Your task to perform on an android device: toggle improve location accuracy Image 0: 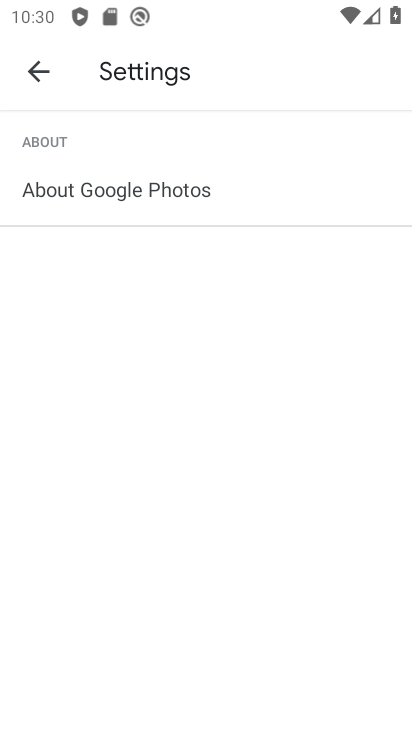
Step 0: press back button
Your task to perform on an android device: toggle improve location accuracy Image 1: 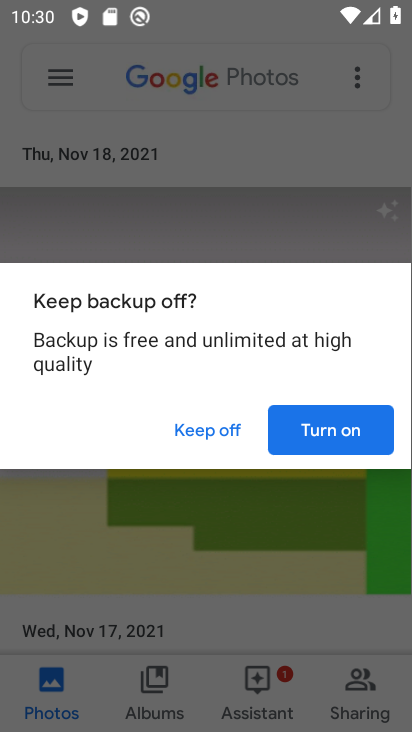
Step 1: press home button
Your task to perform on an android device: toggle improve location accuracy Image 2: 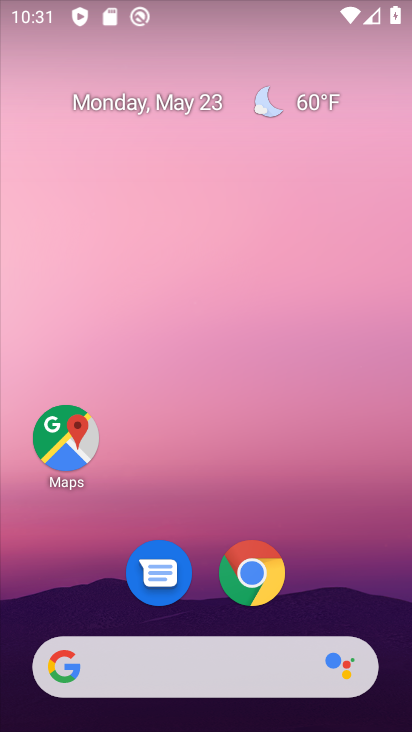
Step 2: drag from (310, 541) to (253, 0)
Your task to perform on an android device: toggle improve location accuracy Image 3: 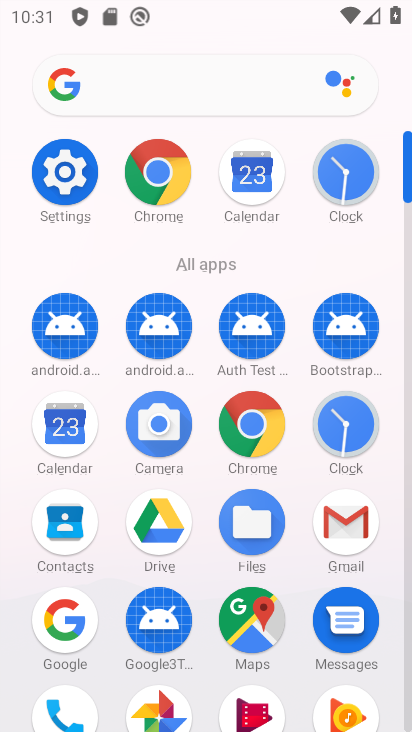
Step 3: drag from (16, 582) to (14, 181)
Your task to perform on an android device: toggle improve location accuracy Image 4: 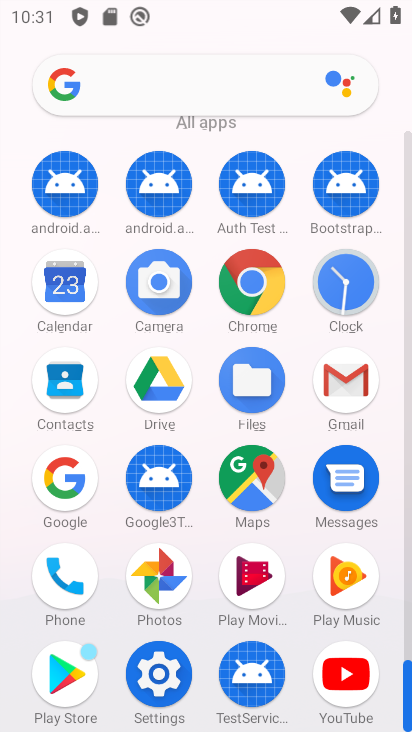
Step 4: click (157, 671)
Your task to perform on an android device: toggle improve location accuracy Image 5: 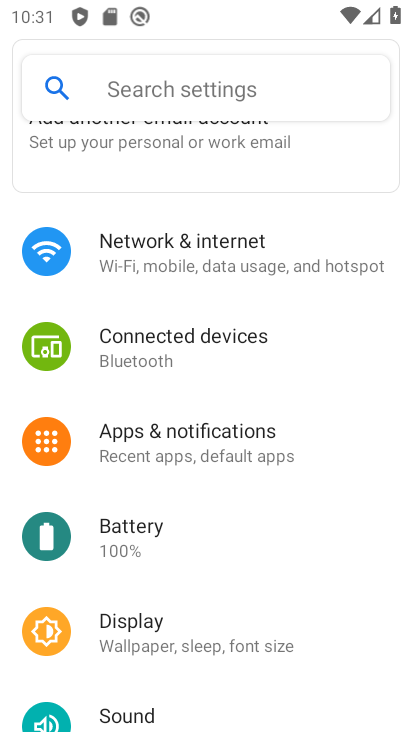
Step 5: drag from (279, 627) to (300, 167)
Your task to perform on an android device: toggle improve location accuracy Image 6: 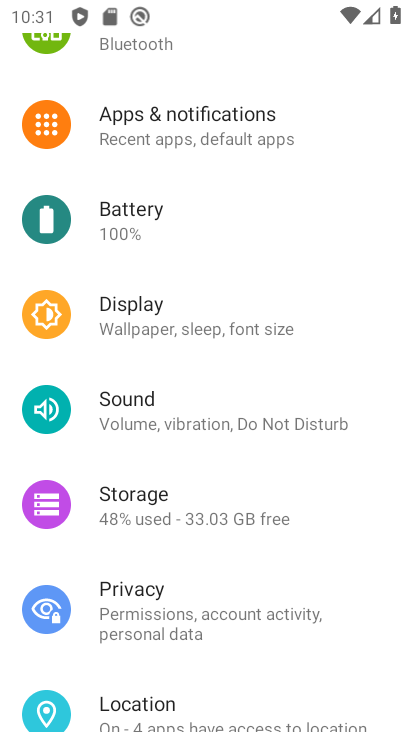
Step 6: drag from (238, 578) to (283, 157)
Your task to perform on an android device: toggle improve location accuracy Image 7: 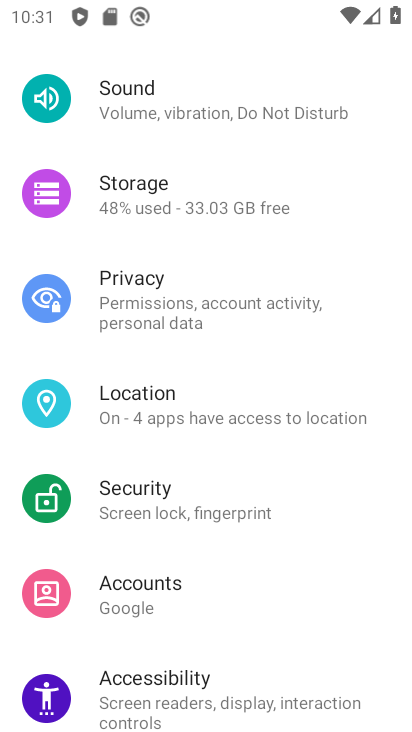
Step 7: drag from (263, 649) to (258, 112)
Your task to perform on an android device: toggle improve location accuracy Image 8: 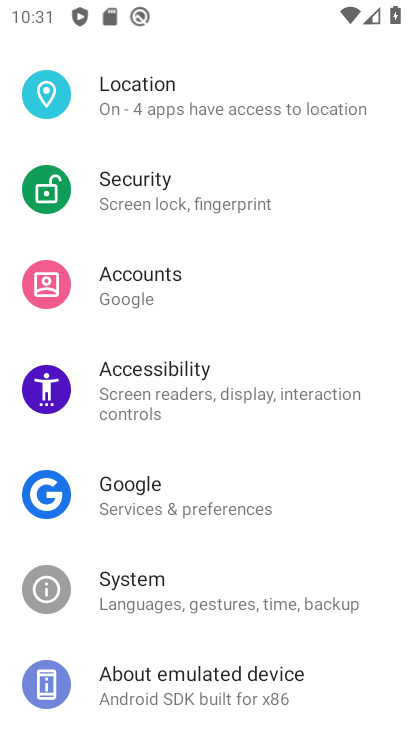
Step 8: drag from (280, 602) to (240, 145)
Your task to perform on an android device: toggle improve location accuracy Image 9: 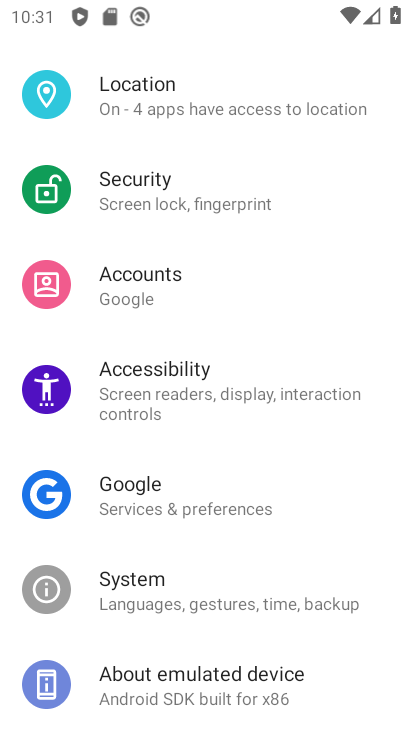
Step 9: click (214, 95)
Your task to perform on an android device: toggle improve location accuracy Image 10: 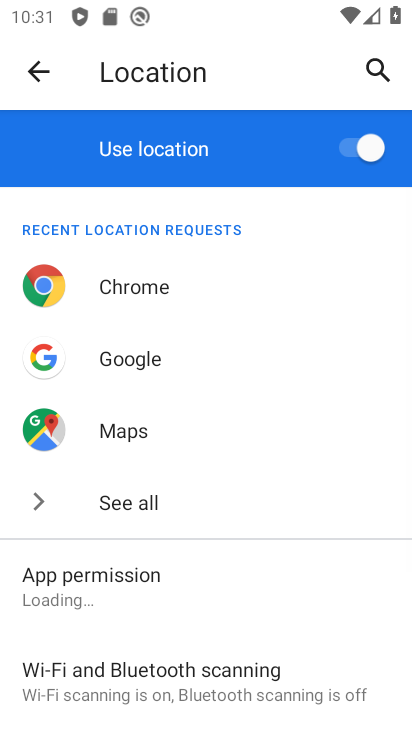
Step 10: drag from (271, 552) to (276, 142)
Your task to perform on an android device: toggle improve location accuracy Image 11: 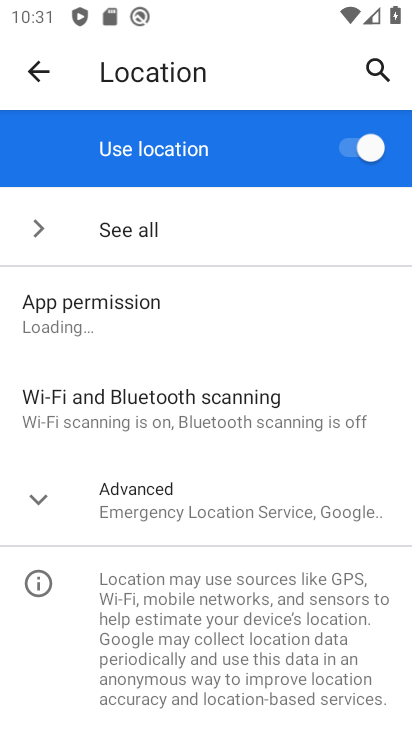
Step 11: click (201, 511)
Your task to perform on an android device: toggle improve location accuracy Image 12: 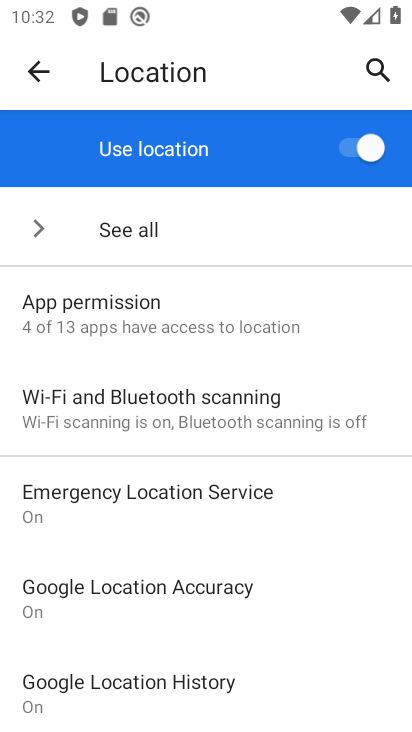
Step 12: drag from (256, 516) to (260, 107)
Your task to perform on an android device: toggle improve location accuracy Image 13: 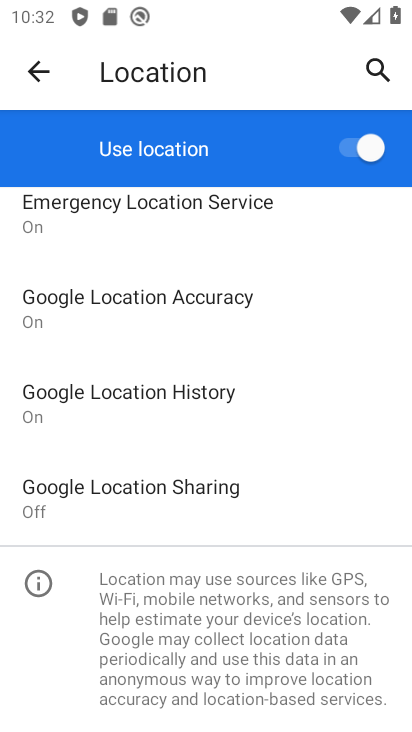
Step 13: drag from (264, 617) to (229, 139)
Your task to perform on an android device: toggle improve location accuracy Image 14: 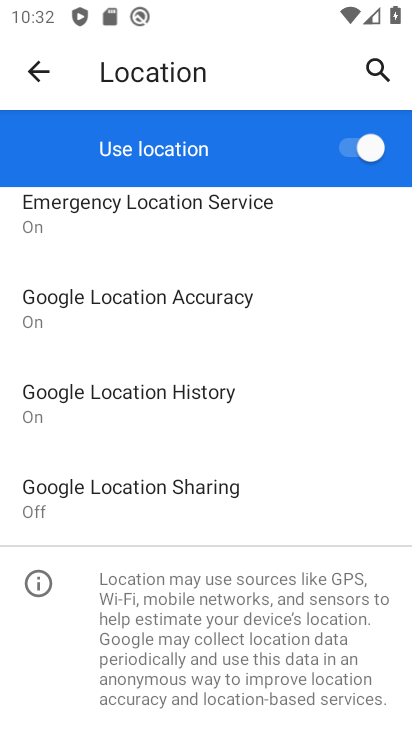
Step 14: click (188, 307)
Your task to perform on an android device: toggle improve location accuracy Image 15: 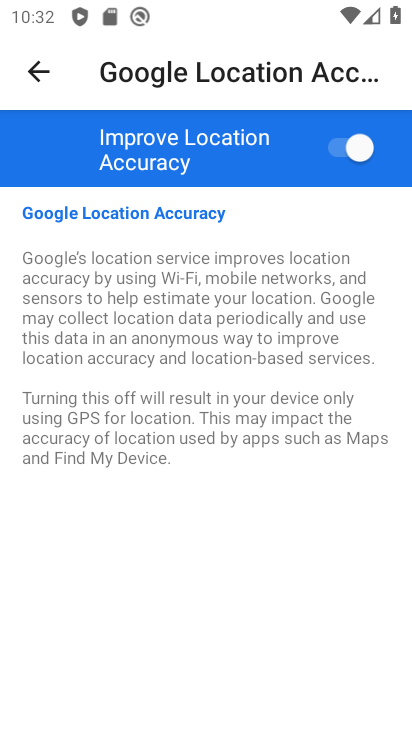
Step 15: task complete